Your task to perform on an android device: toggle translation in the chrome app Image 0: 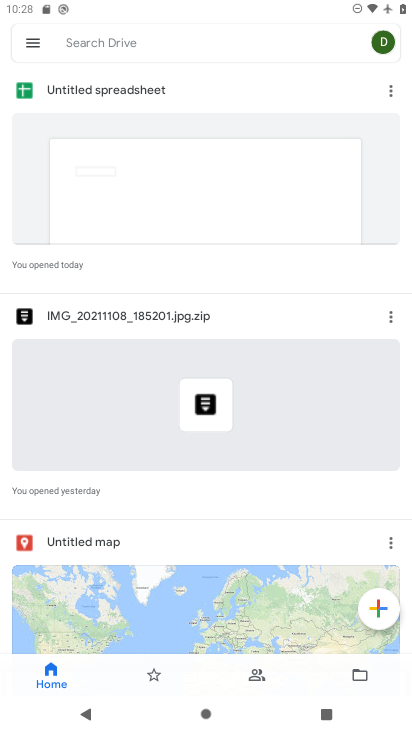
Step 0: press home button
Your task to perform on an android device: toggle translation in the chrome app Image 1: 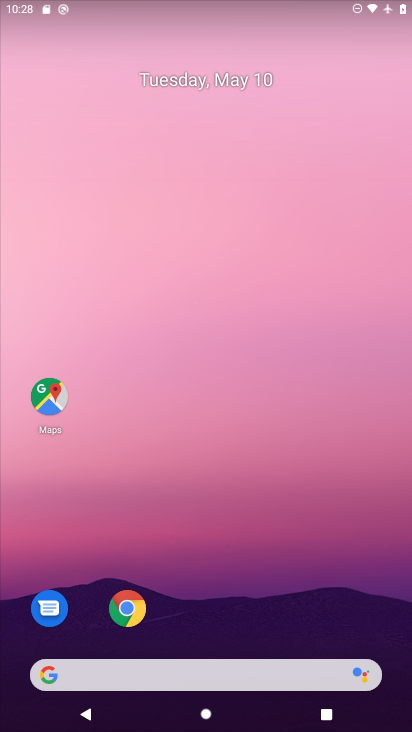
Step 1: drag from (251, 638) to (296, 223)
Your task to perform on an android device: toggle translation in the chrome app Image 2: 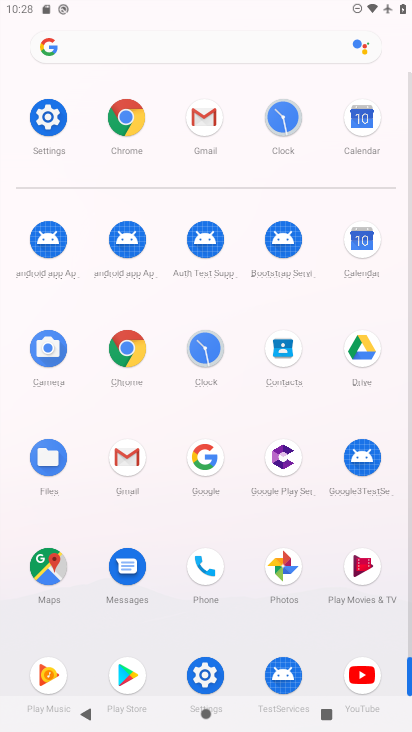
Step 2: click (124, 114)
Your task to perform on an android device: toggle translation in the chrome app Image 3: 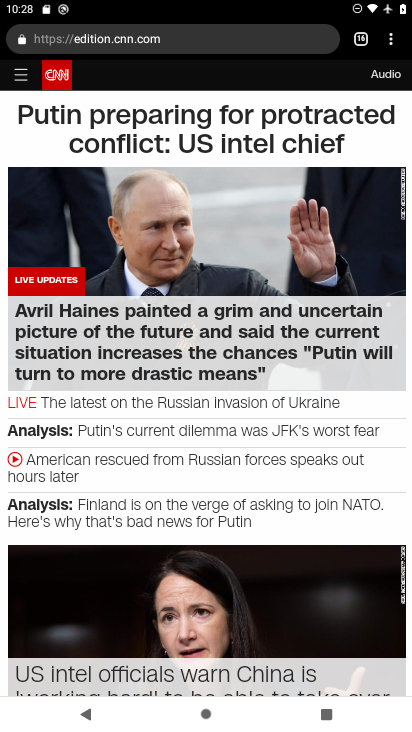
Step 3: click (383, 37)
Your task to perform on an android device: toggle translation in the chrome app Image 4: 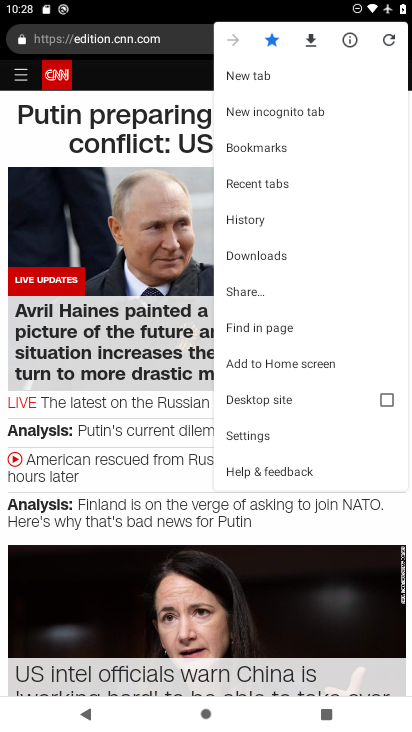
Step 4: click (273, 435)
Your task to perform on an android device: toggle translation in the chrome app Image 5: 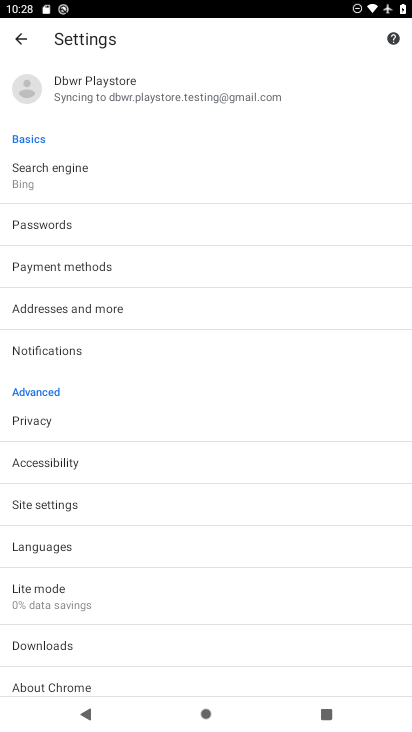
Step 5: click (86, 544)
Your task to perform on an android device: toggle translation in the chrome app Image 6: 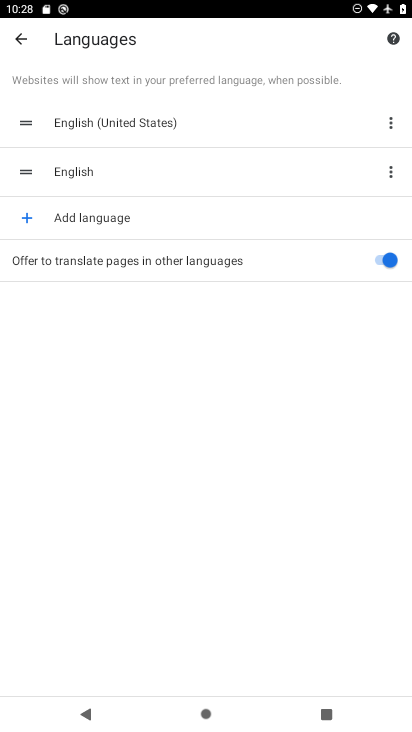
Step 6: click (379, 260)
Your task to perform on an android device: toggle translation in the chrome app Image 7: 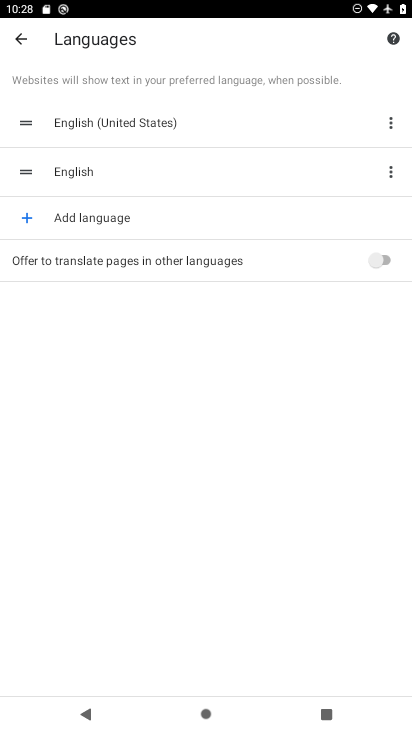
Step 7: task complete